Your task to perform on an android device: change the clock display to digital Image 0: 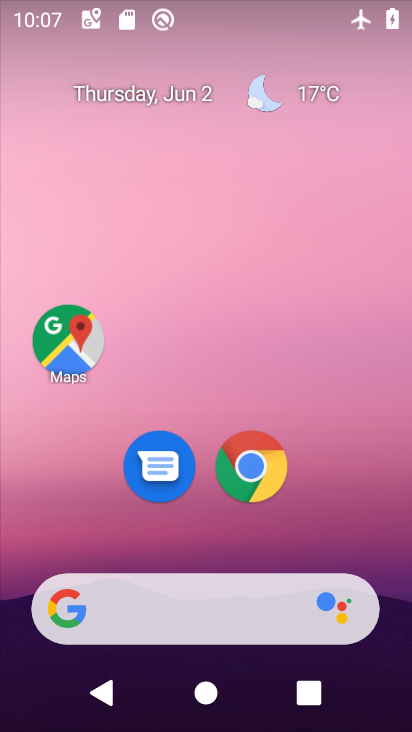
Step 0: drag from (281, 525) to (269, 61)
Your task to perform on an android device: change the clock display to digital Image 1: 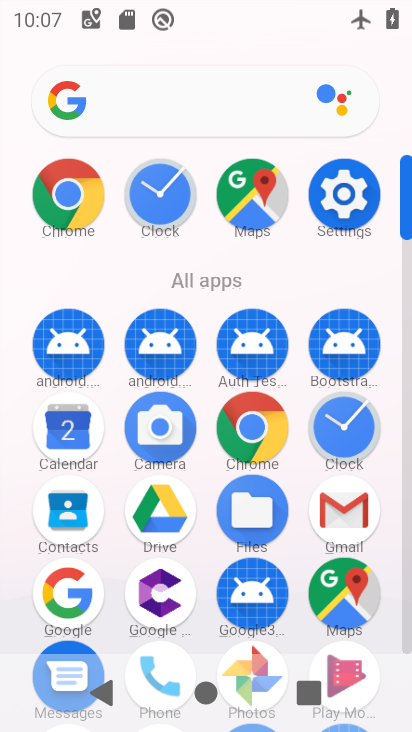
Step 1: click (353, 423)
Your task to perform on an android device: change the clock display to digital Image 2: 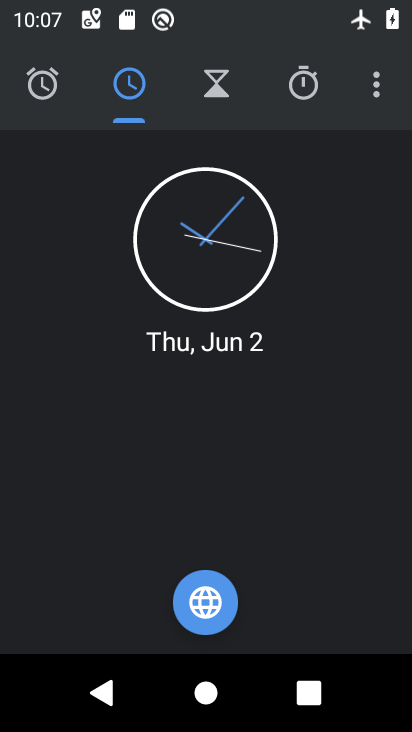
Step 2: click (373, 83)
Your task to perform on an android device: change the clock display to digital Image 3: 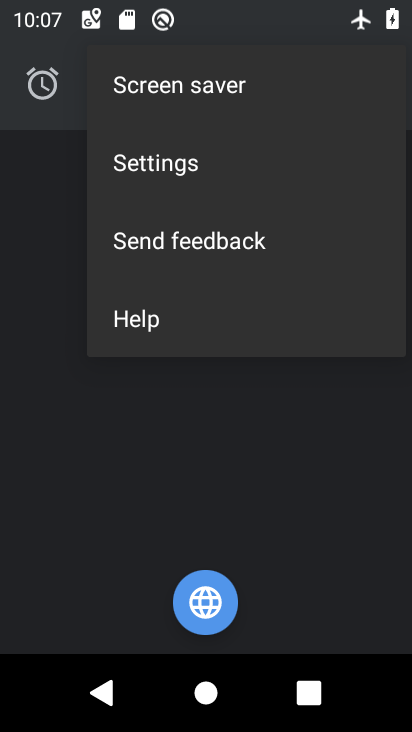
Step 3: click (174, 168)
Your task to perform on an android device: change the clock display to digital Image 4: 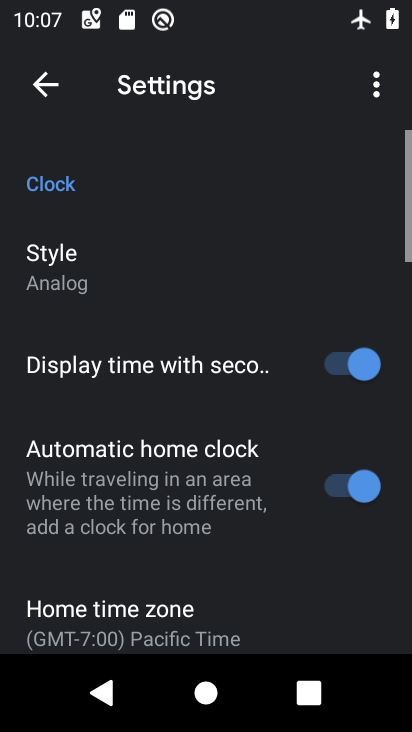
Step 4: click (72, 262)
Your task to perform on an android device: change the clock display to digital Image 5: 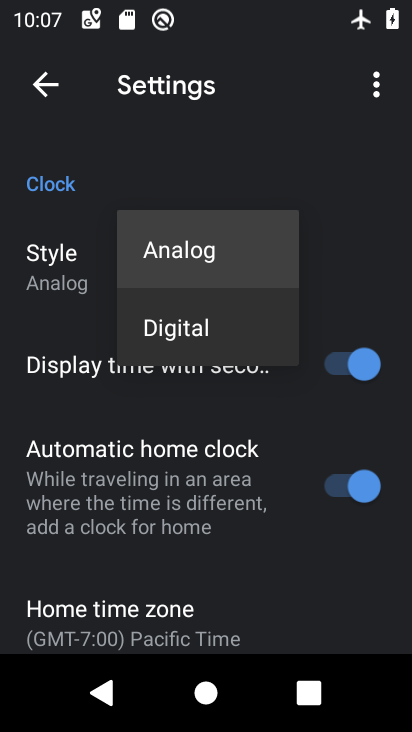
Step 5: click (174, 324)
Your task to perform on an android device: change the clock display to digital Image 6: 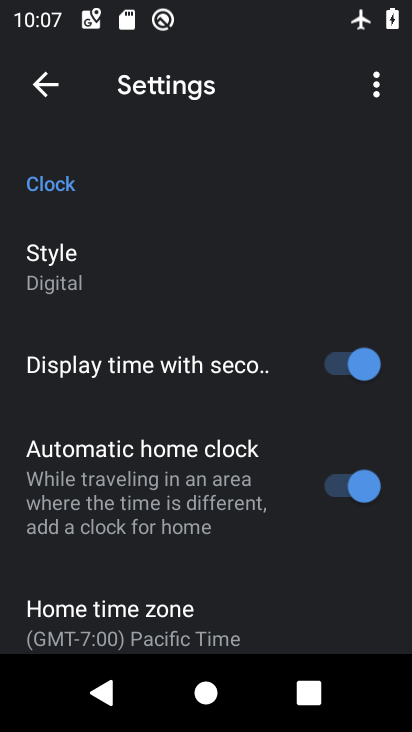
Step 6: task complete